Your task to perform on an android device: turn smart compose on in the gmail app Image 0: 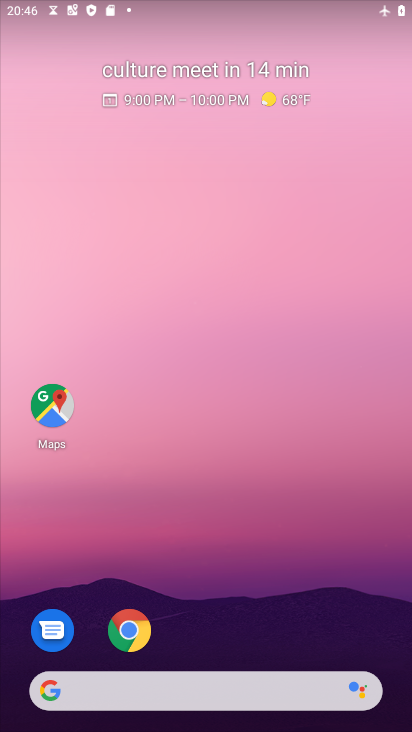
Step 0: drag from (279, 336) to (273, 153)
Your task to perform on an android device: turn smart compose on in the gmail app Image 1: 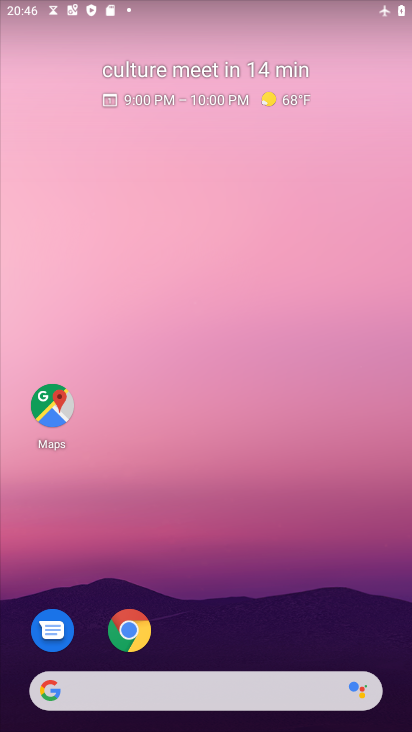
Step 1: drag from (240, 615) to (144, 117)
Your task to perform on an android device: turn smart compose on in the gmail app Image 2: 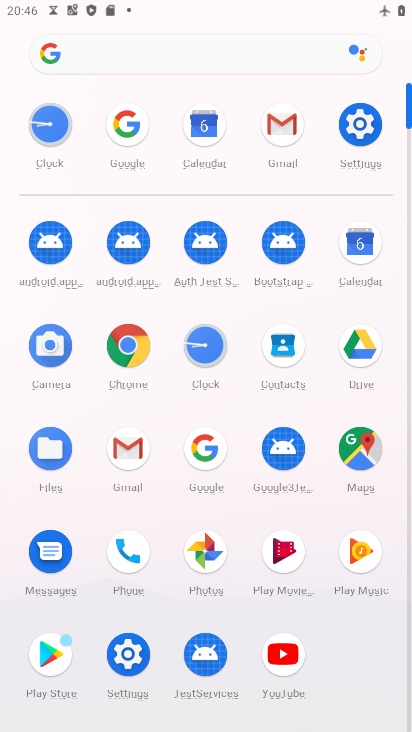
Step 2: click (283, 124)
Your task to perform on an android device: turn smart compose on in the gmail app Image 3: 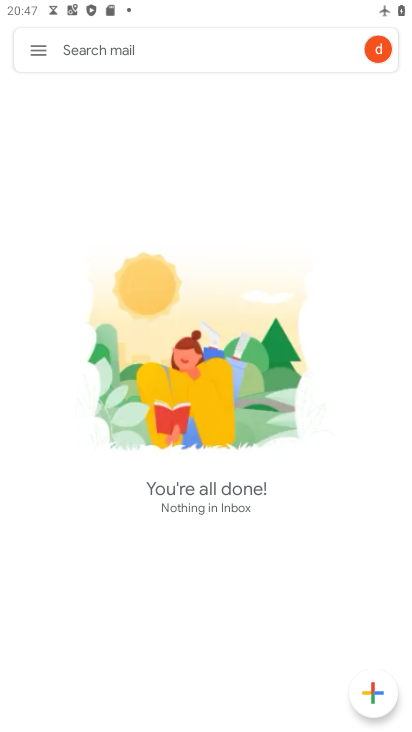
Step 3: click (43, 51)
Your task to perform on an android device: turn smart compose on in the gmail app Image 4: 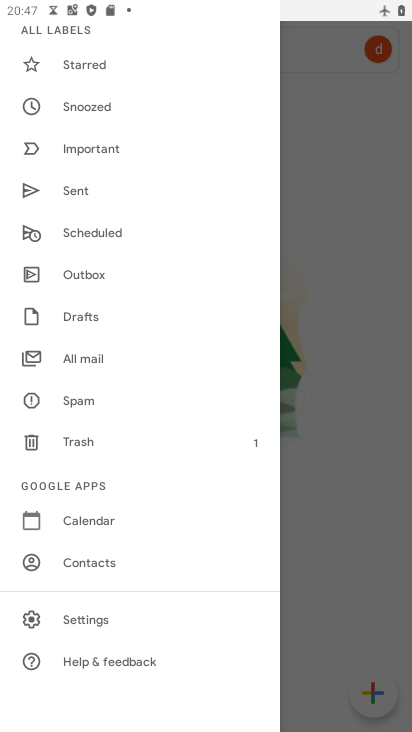
Step 4: drag from (122, 492) to (89, 391)
Your task to perform on an android device: turn smart compose on in the gmail app Image 5: 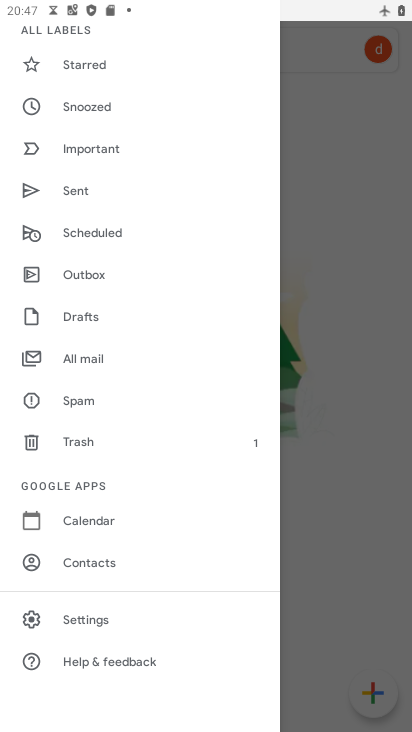
Step 5: click (105, 615)
Your task to perform on an android device: turn smart compose on in the gmail app Image 6: 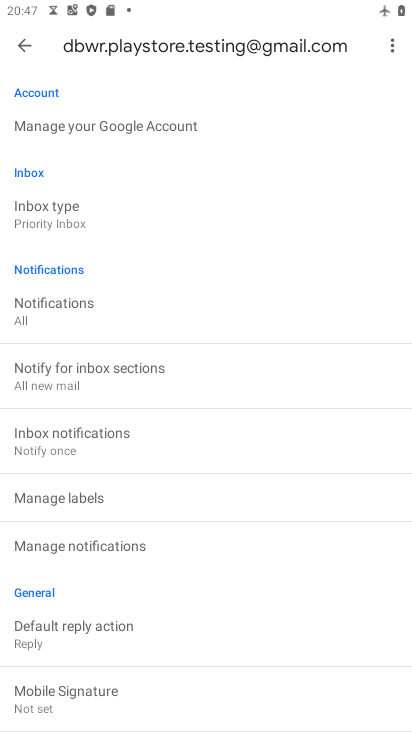
Step 6: task complete